Your task to perform on an android device: turn on the 12-hour format for clock Image 0: 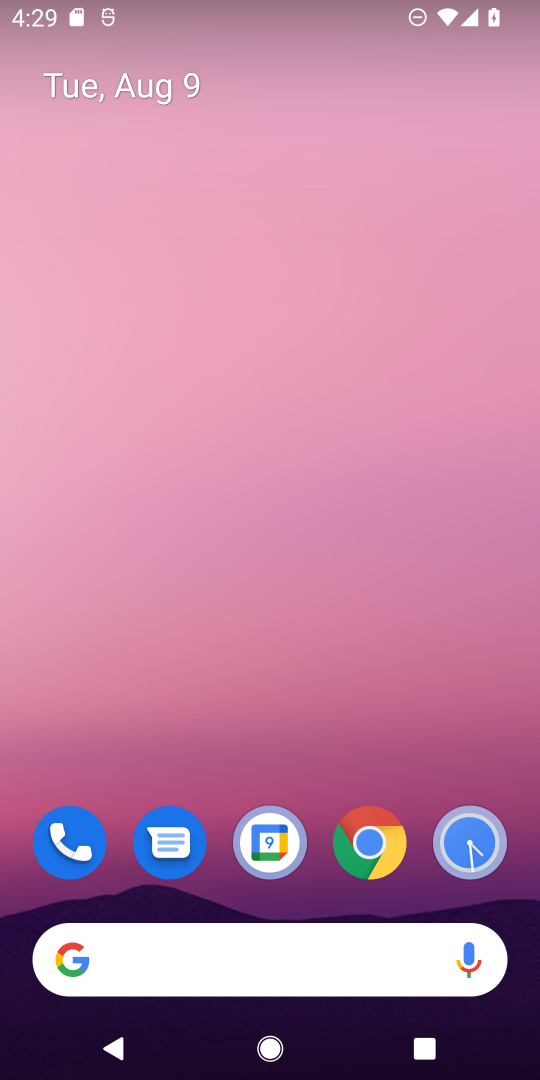
Step 0: drag from (261, 949) to (356, 117)
Your task to perform on an android device: turn on the 12-hour format for clock Image 1: 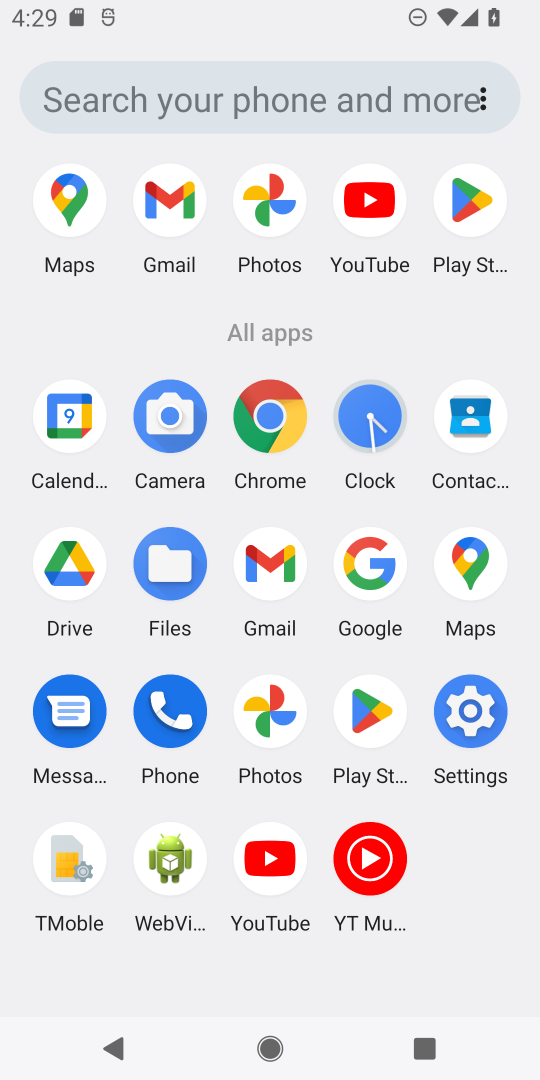
Step 1: click (391, 418)
Your task to perform on an android device: turn on the 12-hour format for clock Image 2: 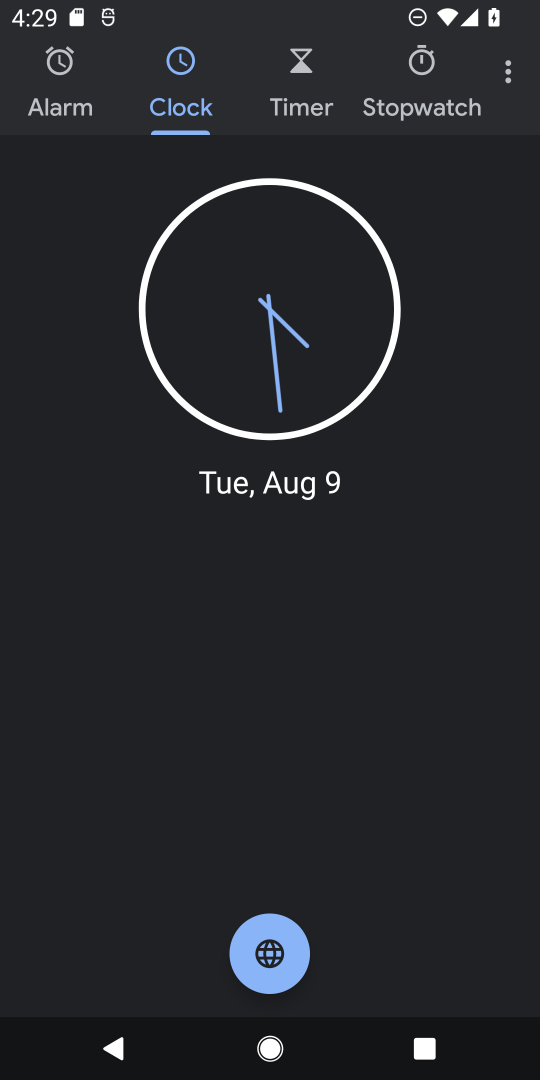
Step 2: click (501, 67)
Your task to perform on an android device: turn on the 12-hour format for clock Image 3: 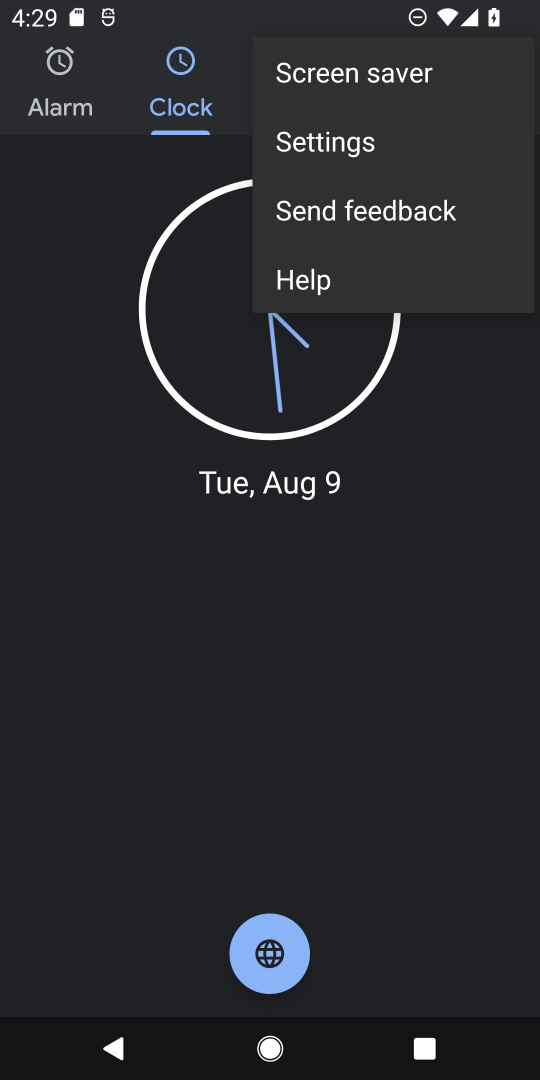
Step 3: click (349, 159)
Your task to perform on an android device: turn on the 12-hour format for clock Image 4: 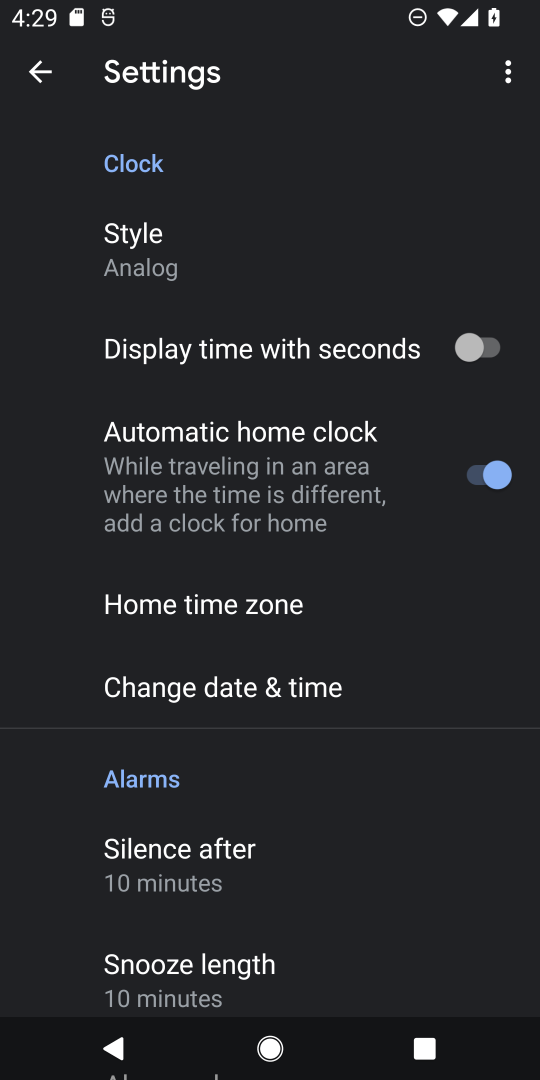
Step 4: click (305, 675)
Your task to perform on an android device: turn on the 12-hour format for clock Image 5: 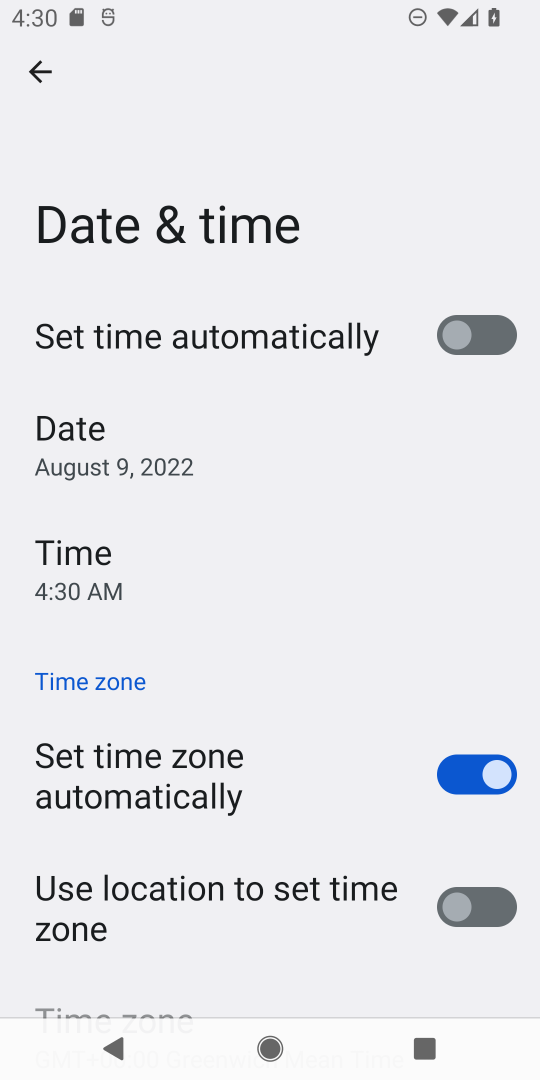
Step 5: drag from (288, 945) to (362, 296)
Your task to perform on an android device: turn on the 12-hour format for clock Image 6: 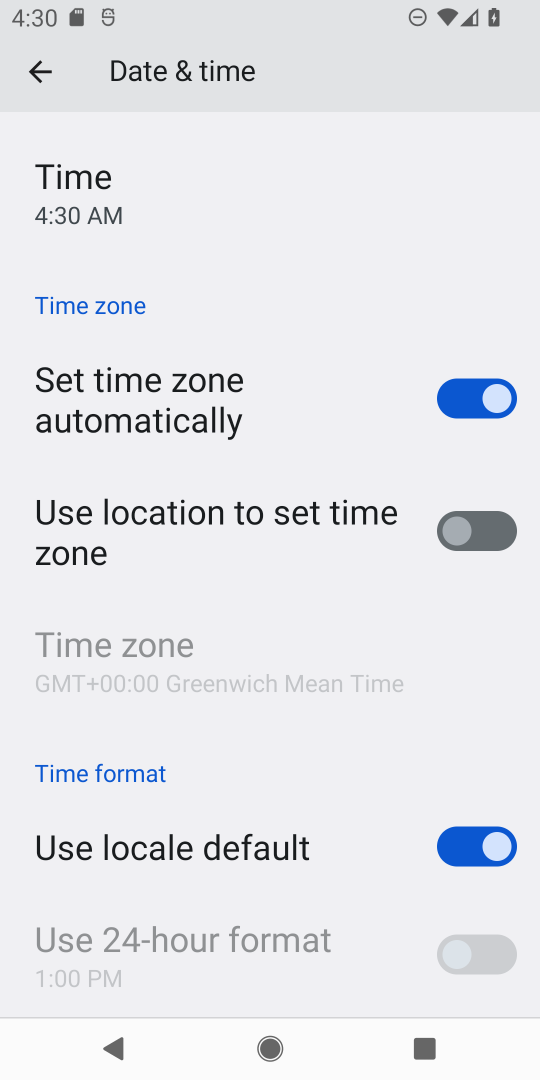
Step 6: click (466, 863)
Your task to perform on an android device: turn on the 12-hour format for clock Image 7: 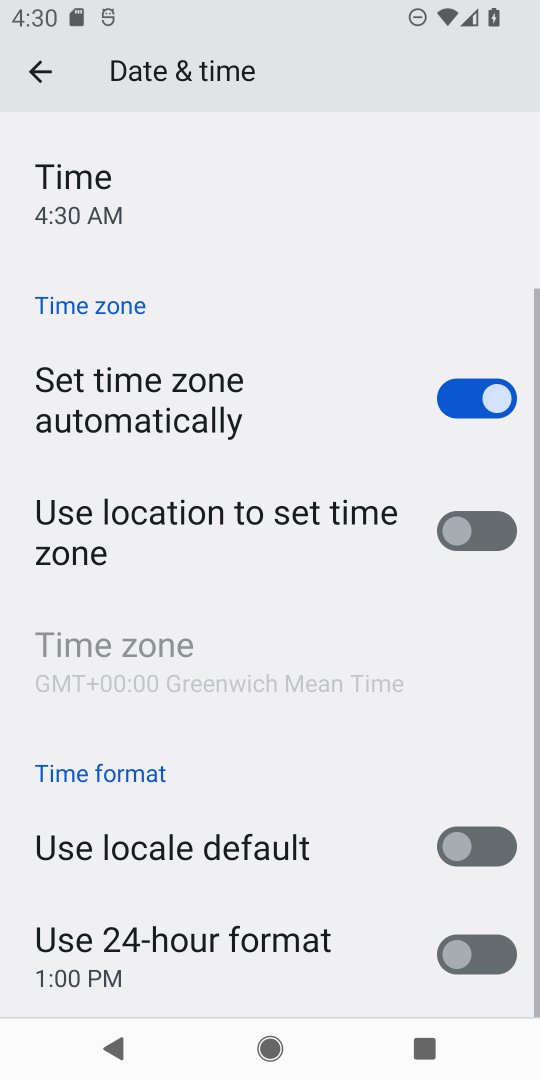
Step 7: task complete